Your task to perform on an android device: empty trash in the gmail app Image 0: 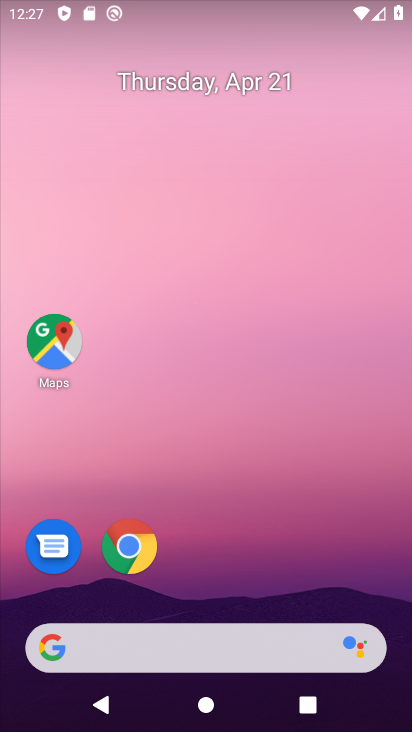
Step 0: click (188, 166)
Your task to perform on an android device: empty trash in the gmail app Image 1: 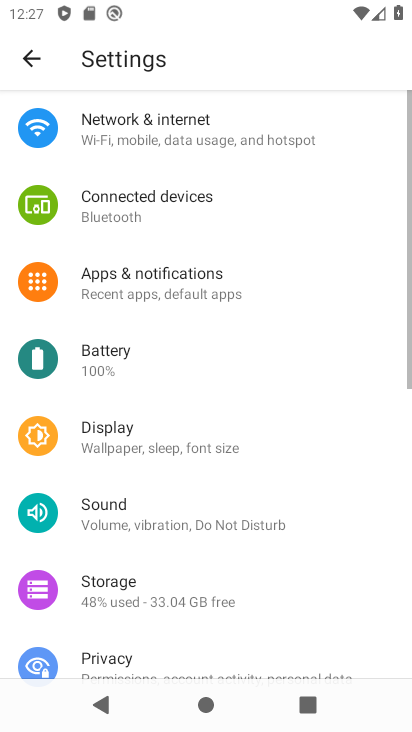
Step 1: press home button
Your task to perform on an android device: empty trash in the gmail app Image 2: 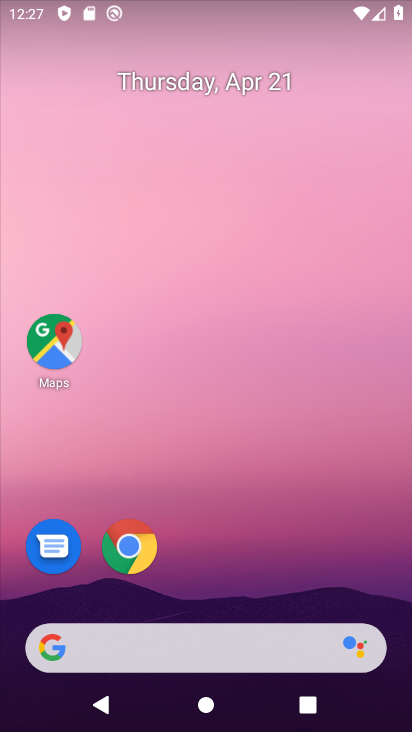
Step 2: drag from (200, 580) to (227, 166)
Your task to perform on an android device: empty trash in the gmail app Image 3: 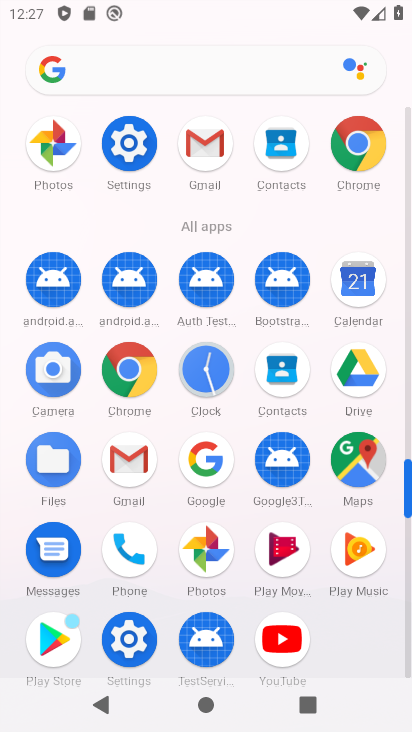
Step 3: click (197, 144)
Your task to perform on an android device: empty trash in the gmail app Image 4: 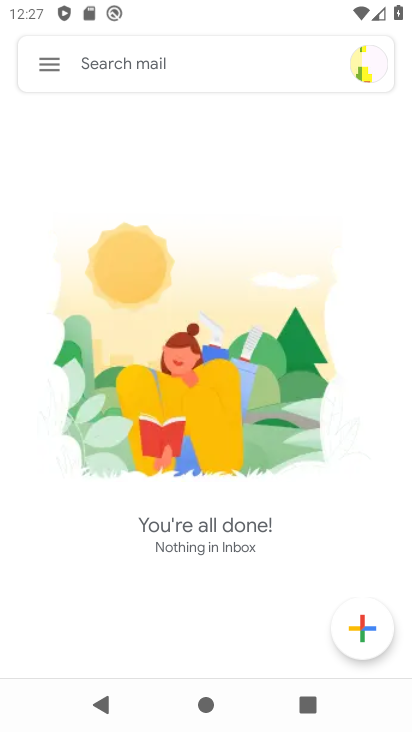
Step 4: click (48, 59)
Your task to perform on an android device: empty trash in the gmail app Image 5: 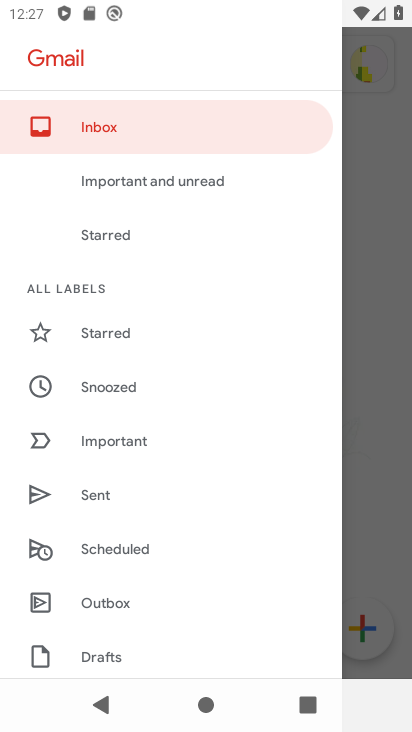
Step 5: drag from (152, 629) to (176, 209)
Your task to perform on an android device: empty trash in the gmail app Image 6: 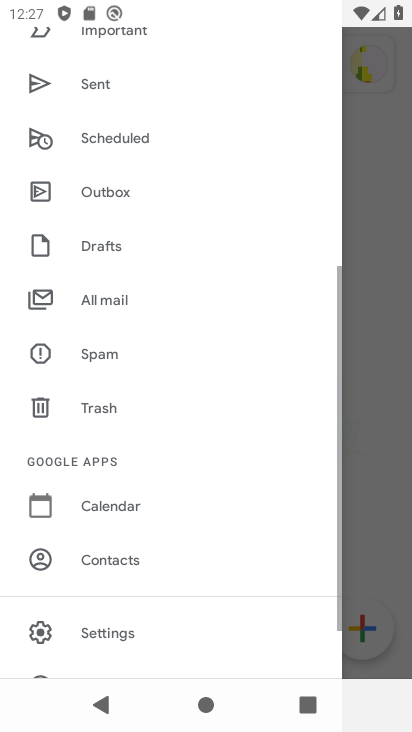
Step 6: drag from (159, 618) to (159, 309)
Your task to perform on an android device: empty trash in the gmail app Image 7: 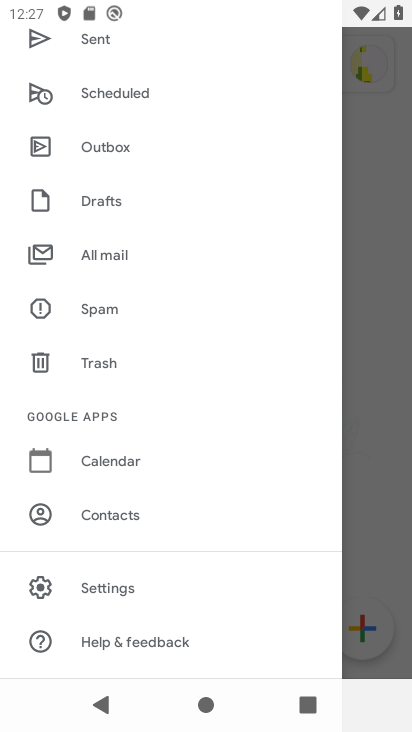
Step 7: click (110, 371)
Your task to perform on an android device: empty trash in the gmail app Image 8: 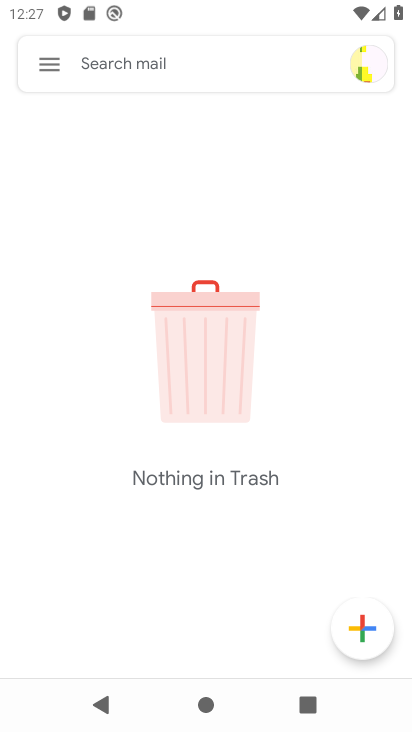
Step 8: task complete